Your task to perform on an android device: Open Google Chrome Image 0: 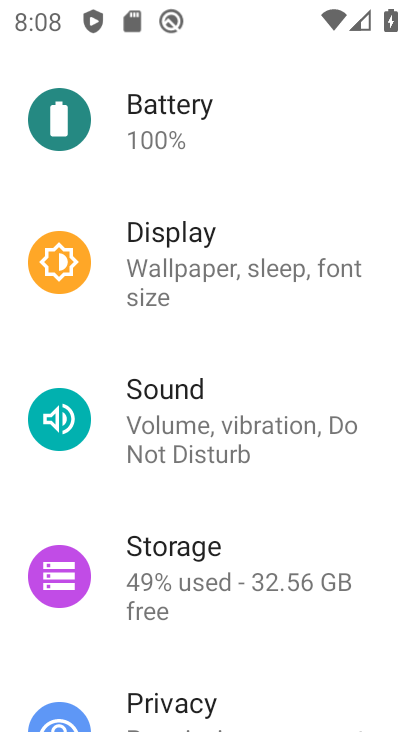
Step 0: press home button
Your task to perform on an android device: Open Google Chrome Image 1: 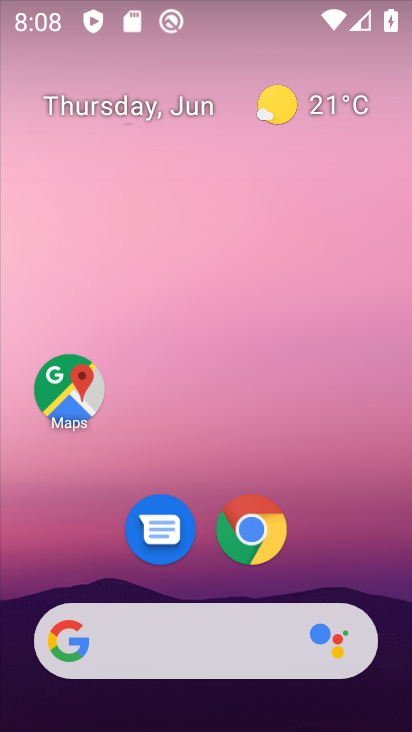
Step 1: click (249, 531)
Your task to perform on an android device: Open Google Chrome Image 2: 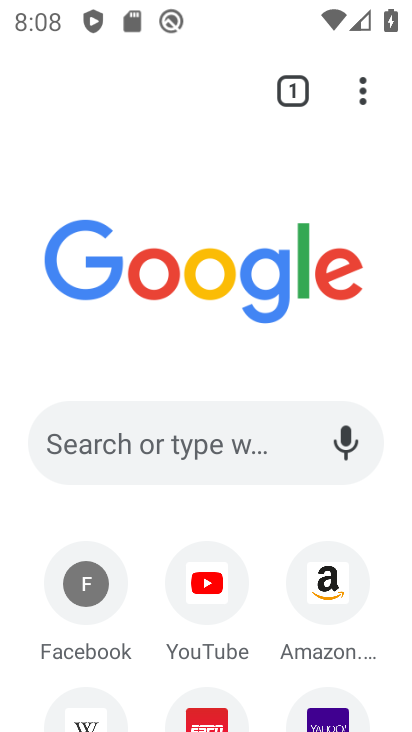
Step 2: task complete